Your task to perform on an android device: set the timer Image 0: 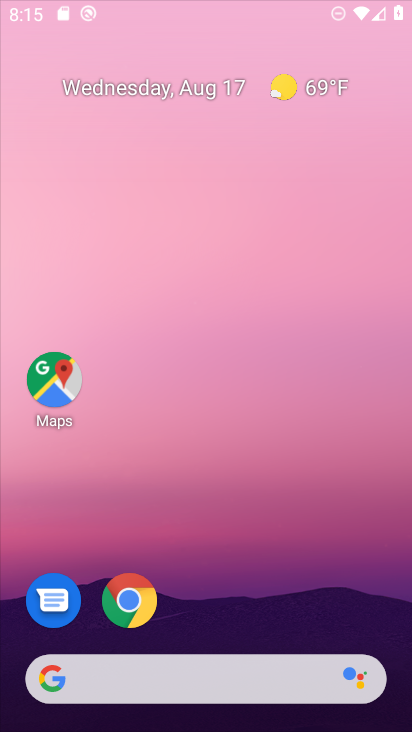
Step 0: press home button
Your task to perform on an android device: set the timer Image 1: 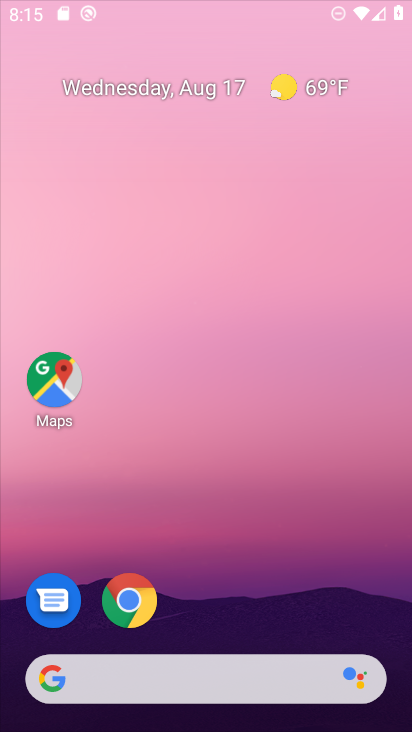
Step 1: click (176, 165)
Your task to perform on an android device: set the timer Image 2: 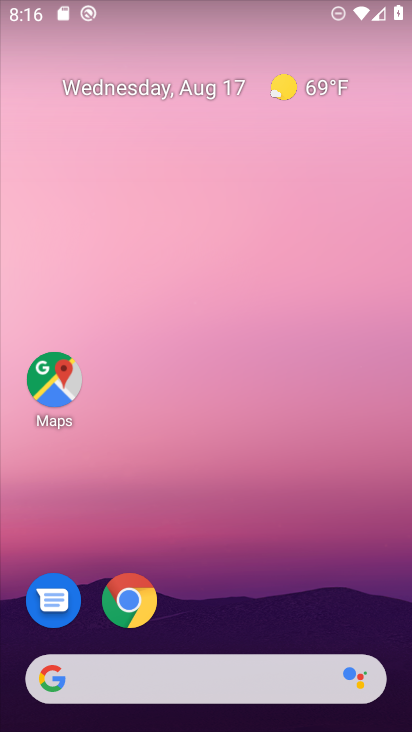
Step 2: drag from (243, 603) to (245, 88)
Your task to perform on an android device: set the timer Image 3: 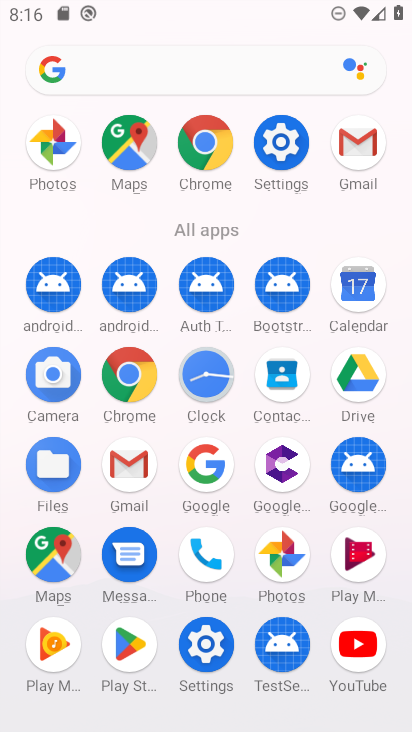
Step 3: click (196, 371)
Your task to perform on an android device: set the timer Image 4: 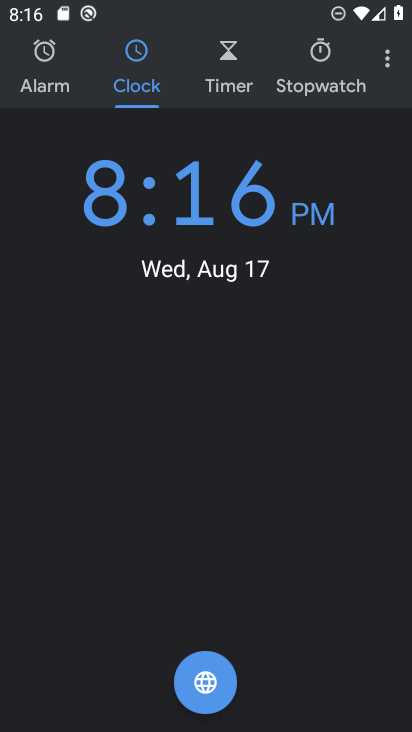
Step 4: click (217, 50)
Your task to perform on an android device: set the timer Image 5: 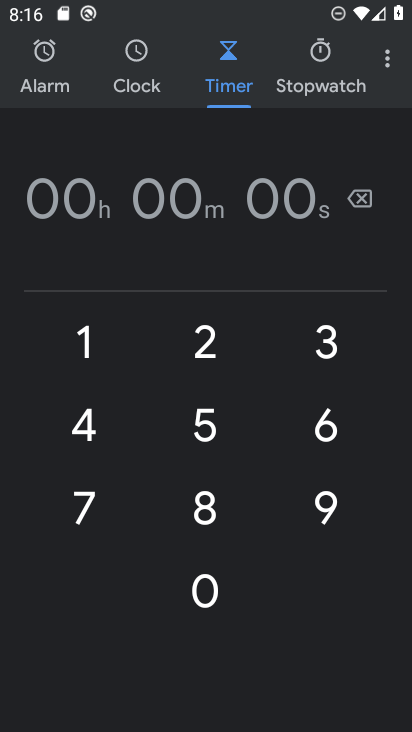
Step 5: click (94, 348)
Your task to perform on an android device: set the timer Image 6: 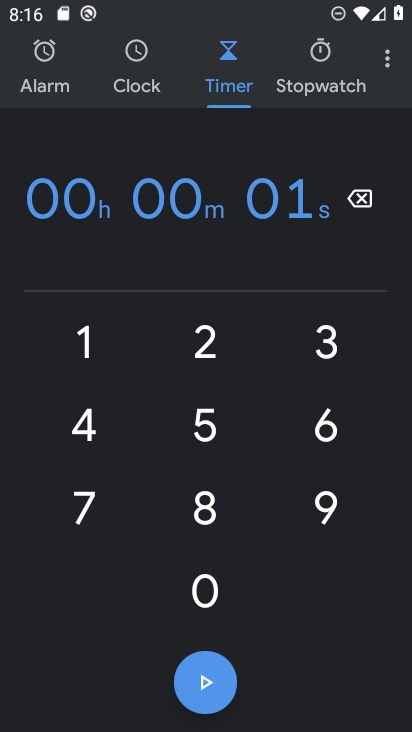
Step 6: click (211, 334)
Your task to perform on an android device: set the timer Image 7: 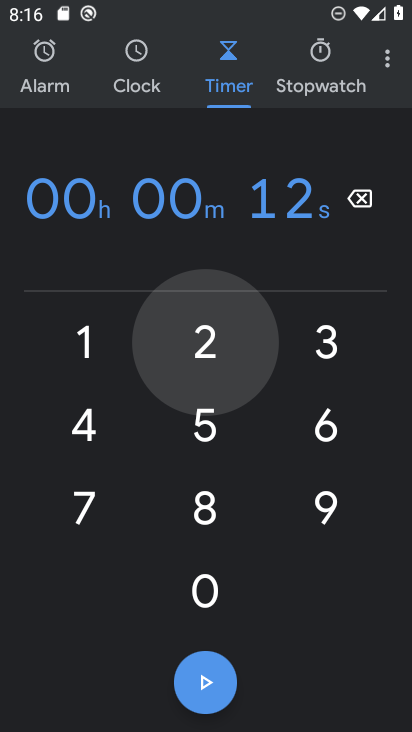
Step 7: click (209, 423)
Your task to perform on an android device: set the timer Image 8: 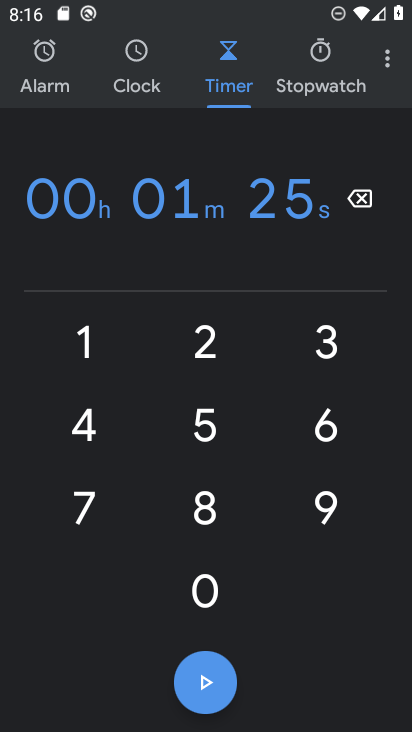
Step 8: click (203, 518)
Your task to perform on an android device: set the timer Image 9: 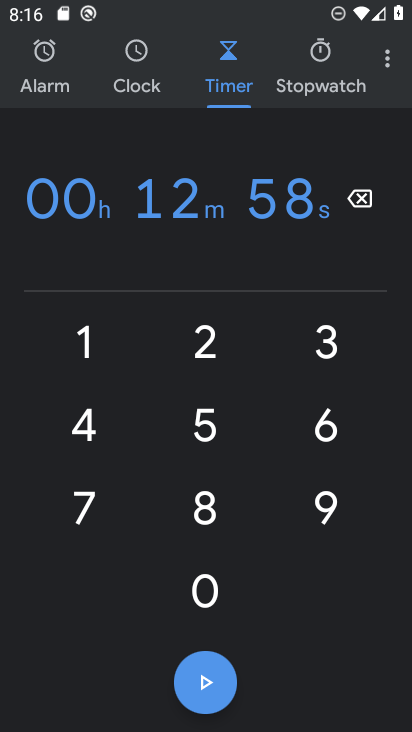
Step 9: click (326, 346)
Your task to perform on an android device: set the timer Image 10: 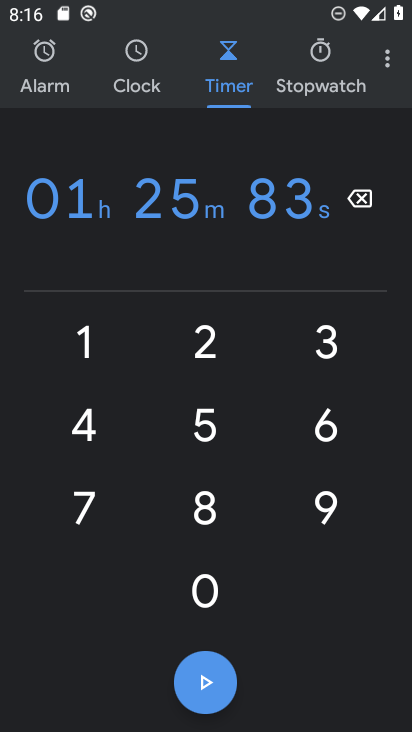
Step 10: click (326, 346)
Your task to perform on an android device: set the timer Image 11: 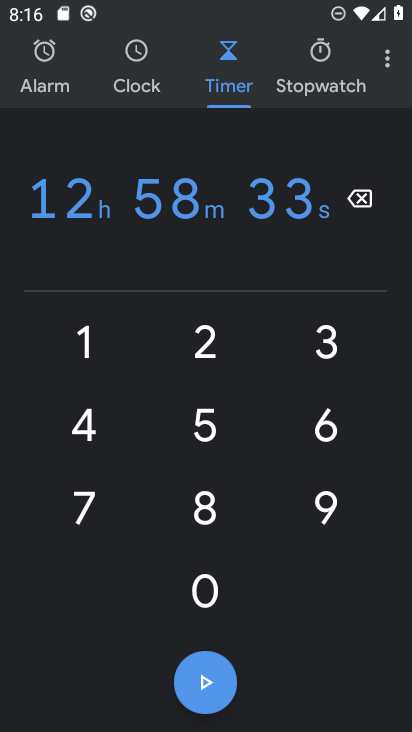
Step 11: click (210, 689)
Your task to perform on an android device: set the timer Image 12: 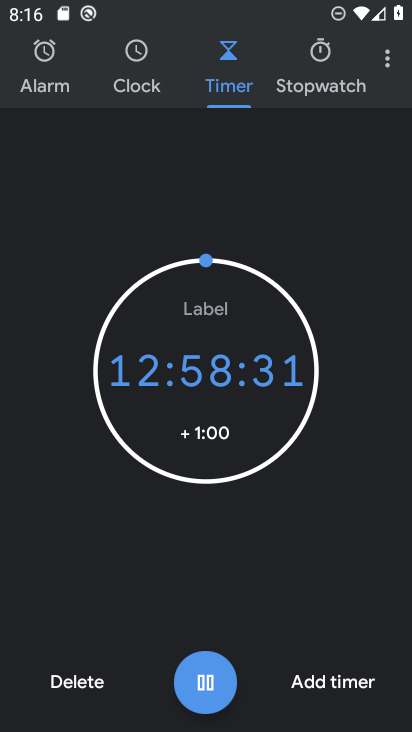
Step 12: click (190, 684)
Your task to perform on an android device: set the timer Image 13: 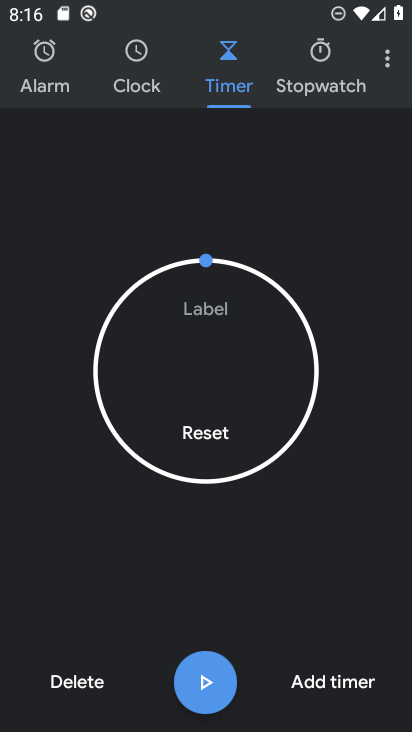
Step 13: task complete